Your task to perform on an android device: toggle notifications settings in the gmail app Image 0: 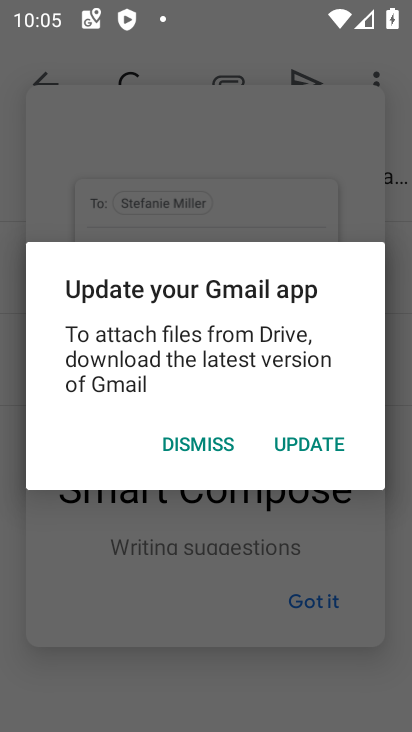
Step 0: press home button
Your task to perform on an android device: toggle notifications settings in the gmail app Image 1: 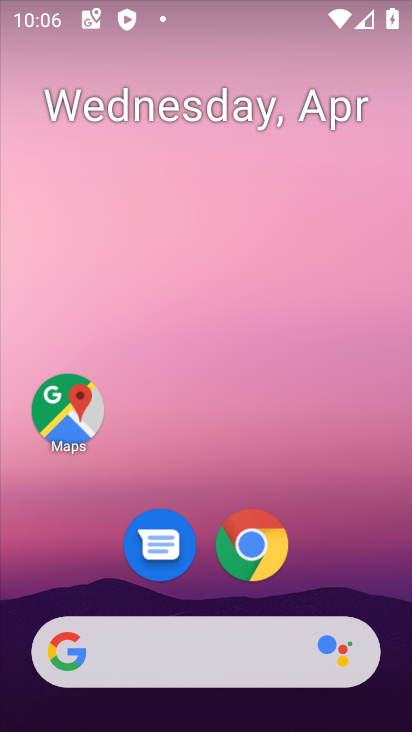
Step 1: drag from (389, 598) to (383, 6)
Your task to perform on an android device: toggle notifications settings in the gmail app Image 2: 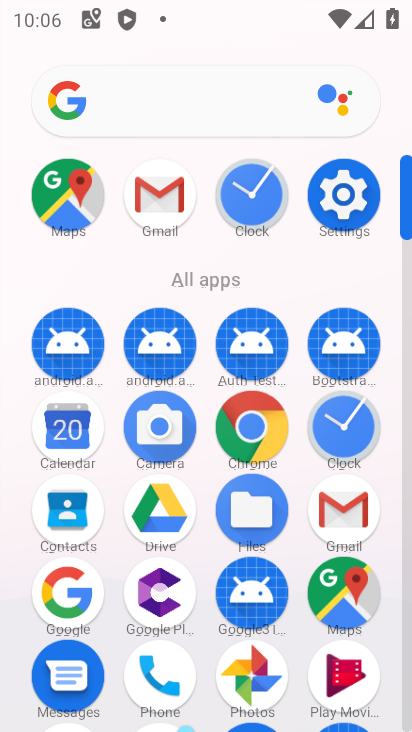
Step 2: click (154, 200)
Your task to perform on an android device: toggle notifications settings in the gmail app Image 3: 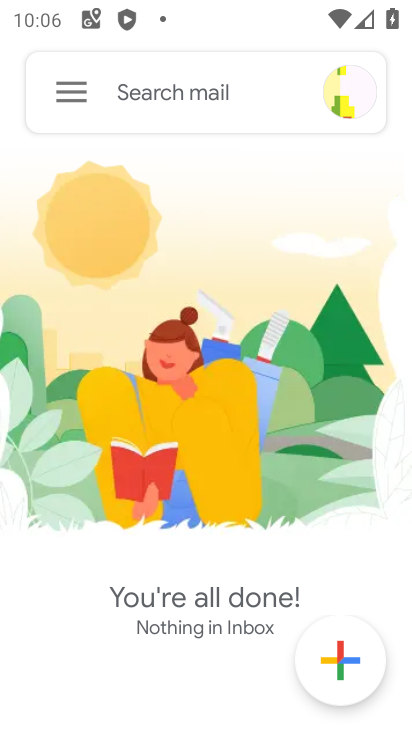
Step 3: click (55, 95)
Your task to perform on an android device: toggle notifications settings in the gmail app Image 4: 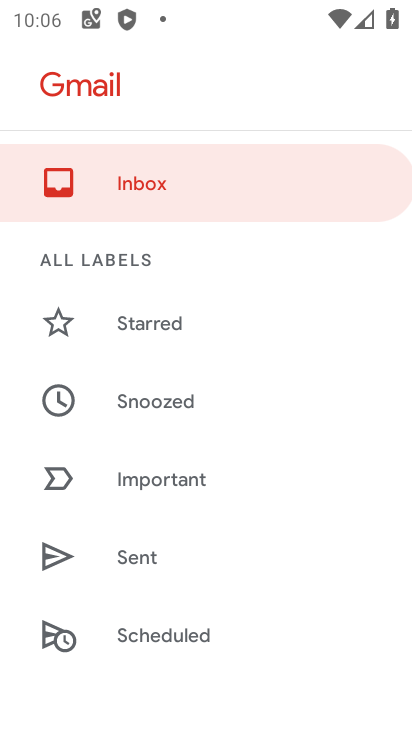
Step 4: drag from (264, 546) to (258, 130)
Your task to perform on an android device: toggle notifications settings in the gmail app Image 5: 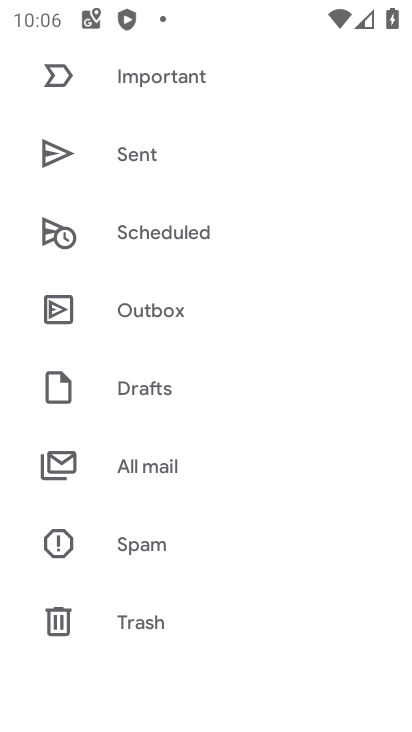
Step 5: drag from (272, 597) to (246, 147)
Your task to perform on an android device: toggle notifications settings in the gmail app Image 6: 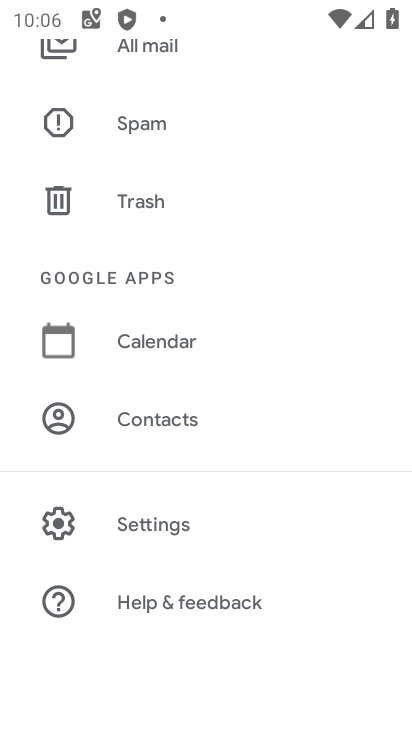
Step 6: click (148, 521)
Your task to perform on an android device: toggle notifications settings in the gmail app Image 7: 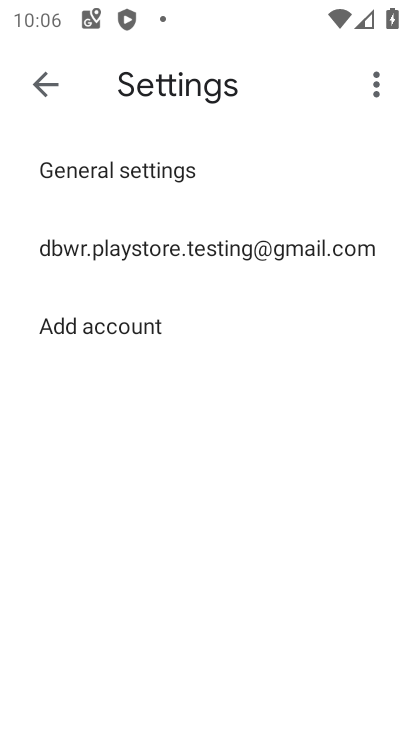
Step 7: click (91, 178)
Your task to perform on an android device: toggle notifications settings in the gmail app Image 8: 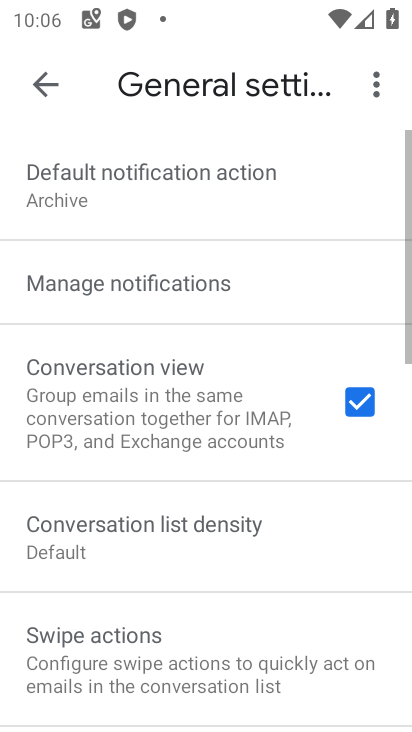
Step 8: click (112, 295)
Your task to perform on an android device: toggle notifications settings in the gmail app Image 9: 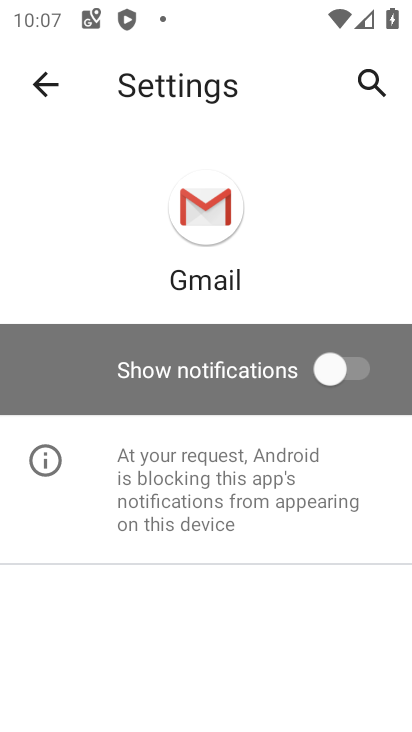
Step 9: click (321, 369)
Your task to perform on an android device: toggle notifications settings in the gmail app Image 10: 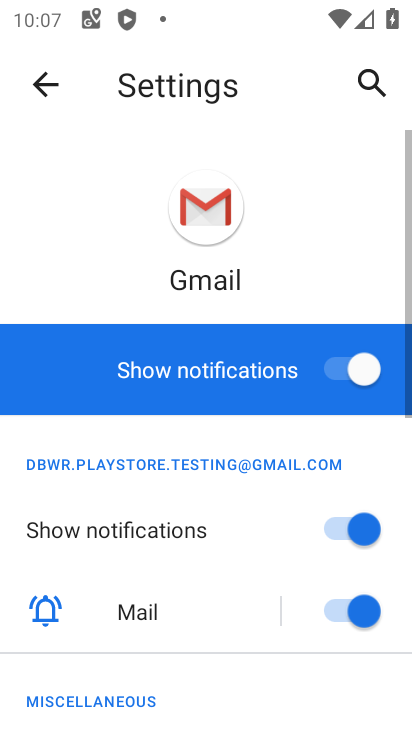
Step 10: task complete